Your task to perform on an android device: Open the Play Movies app and select the watchlist tab. Image 0: 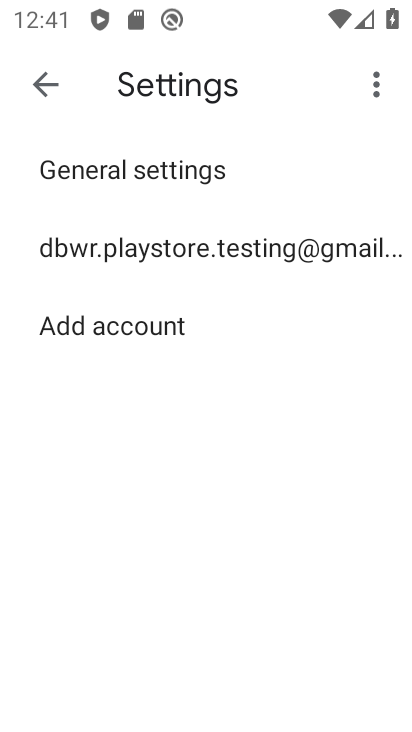
Step 0: press home button
Your task to perform on an android device: Open the Play Movies app and select the watchlist tab. Image 1: 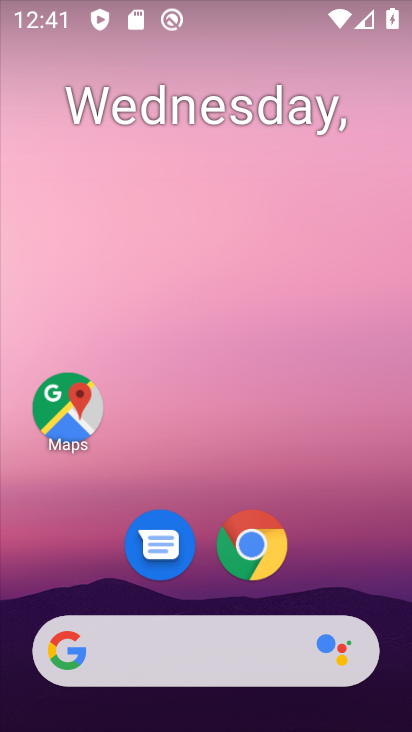
Step 1: drag from (315, 555) to (354, 171)
Your task to perform on an android device: Open the Play Movies app and select the watchlist tab. Image 2: 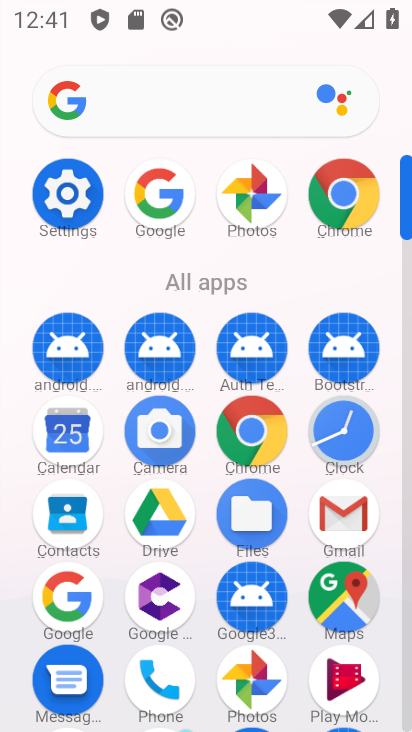
Step 2: drag from (290, 614) to (359, 287)
Your task to perform on an android device: Open the Play Movies app and select the watchlist tab. Image 3: 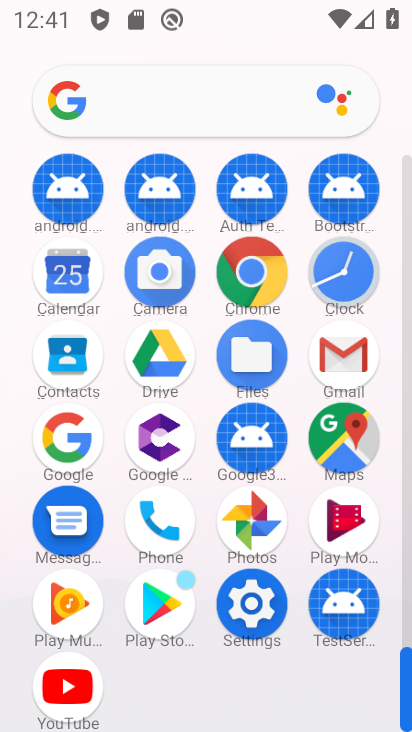
Step 3: click (341, 506)
Your task to perform on an android device: Open the Play Movies app and select the watchlist tab. Image 4: 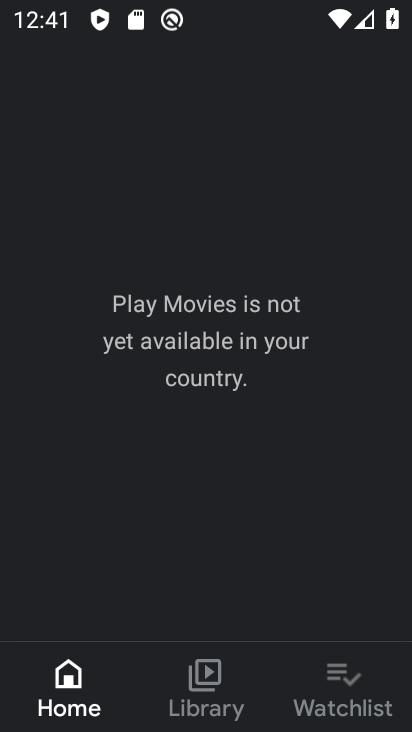
Step 4: click (355, 677)
Your task to perform on an android device: Open the Play Movies app and select the watchlist tab. Image 5: 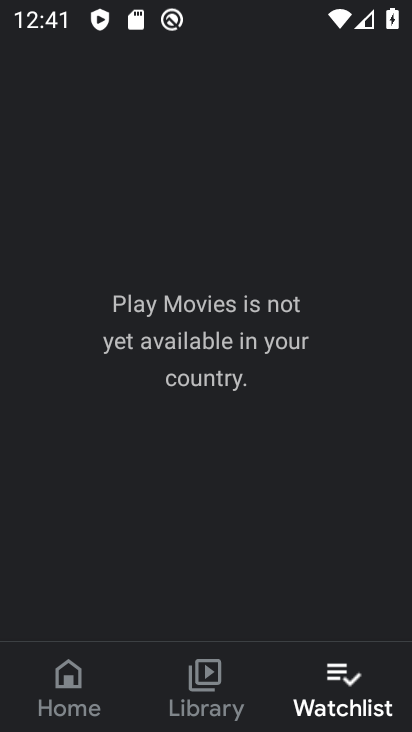
Step 5: task complete